Your task to perform on an android device: move a message to another label in the gmail app Image 0: 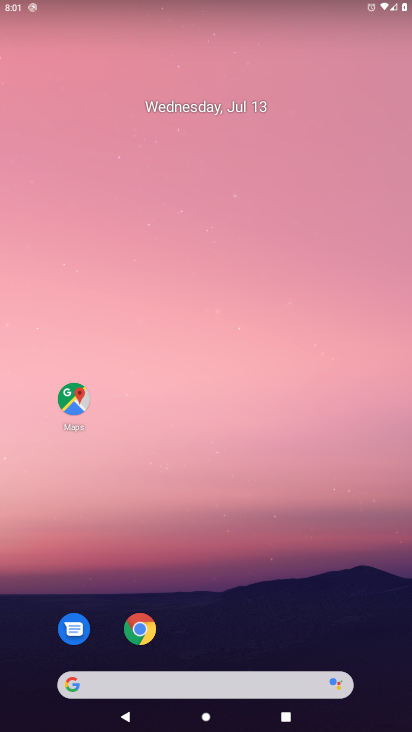
Step 0: drag from (66, 543) to (254, 45)
Your task to perform on an android device: move a message to another label in the gmail app Image 1: 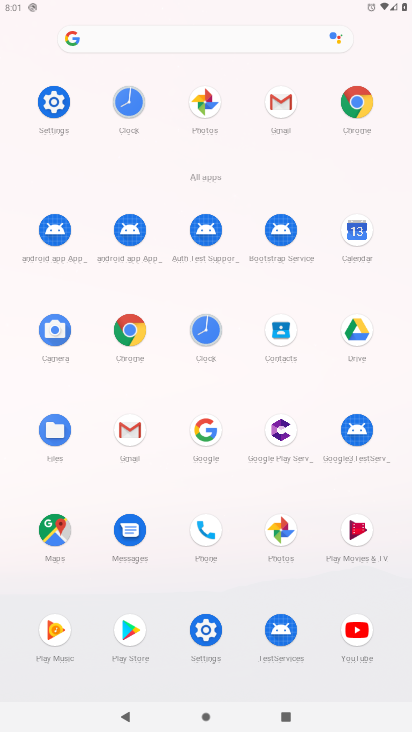
Step 1: click (148, 437)
Your task to perform on an android device: move a message to another label in the gmail app Image 2: 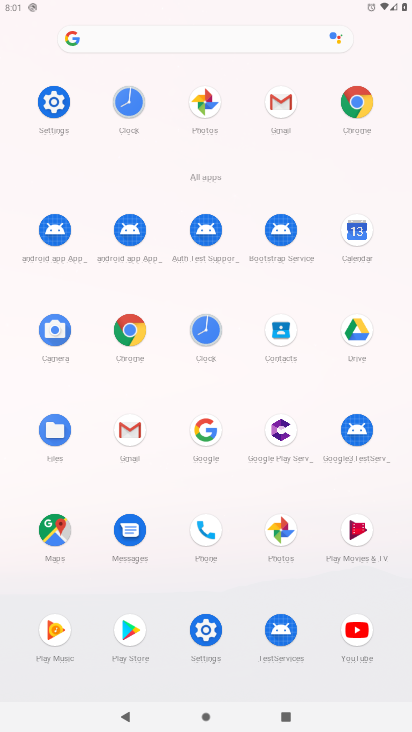
Step 2: click (136, 433)
Your task to perform on an android device: move a message to another label in the gmail app Image 3: 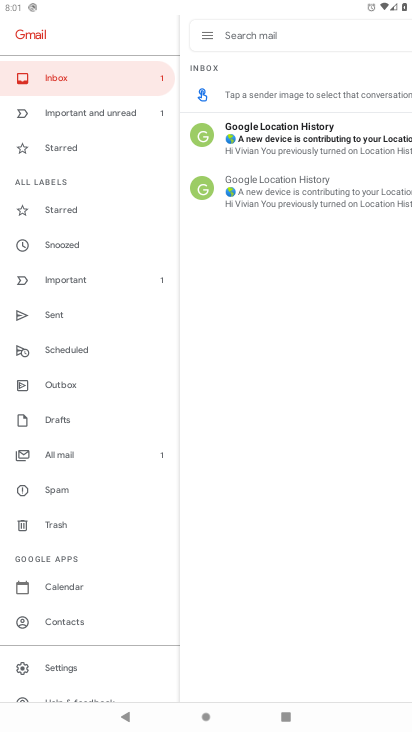
Step 3: task complete